Your task to perform on an android device: change the clock style Image 0: 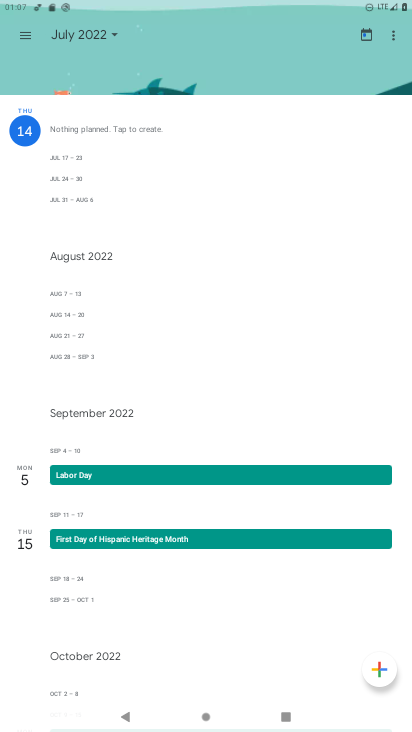
Step 0: press home button
Your task to perform on an android device: change the clock style Image 1: 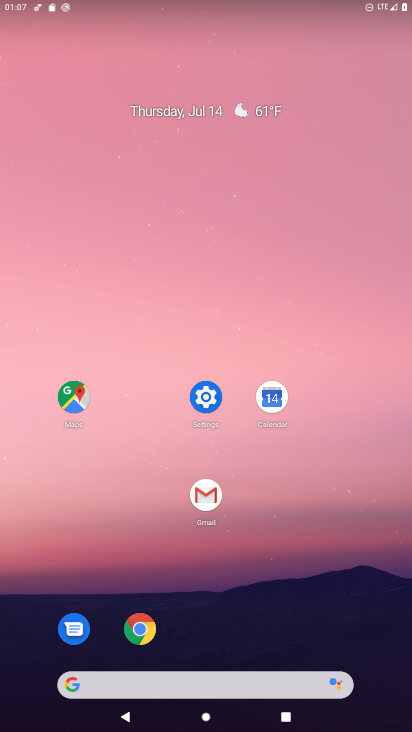
Step 1: drag from (394, 706) to (373, 192)
Your task to perform on an android device: change the clock style Image 2: 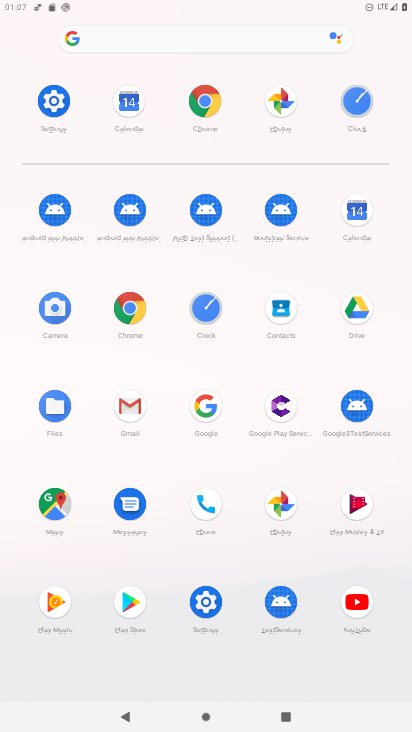
Step 2: click (53, 102)
Your task to perform on an android device: change the clock style Image 3: 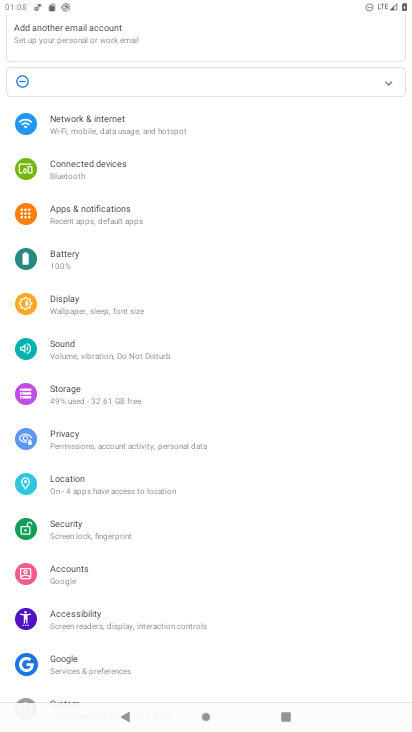
Step 3: press home button
Your task to perform on an android device: change the clock style Image 4: 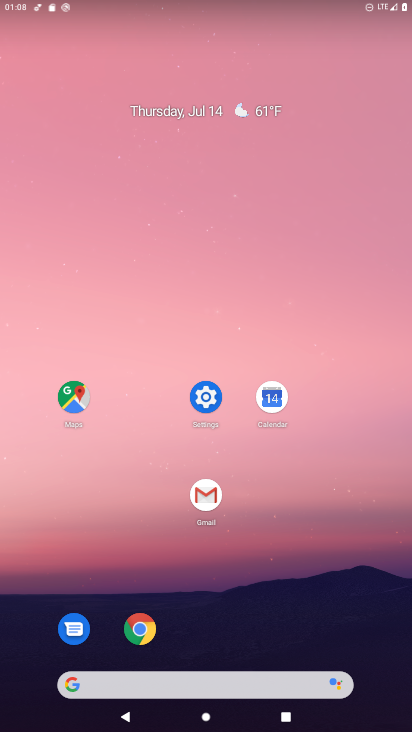
Step 4: drag from (391, 716) to (330, 97)
Your task to perform on an android device: change the clock style Image 5: 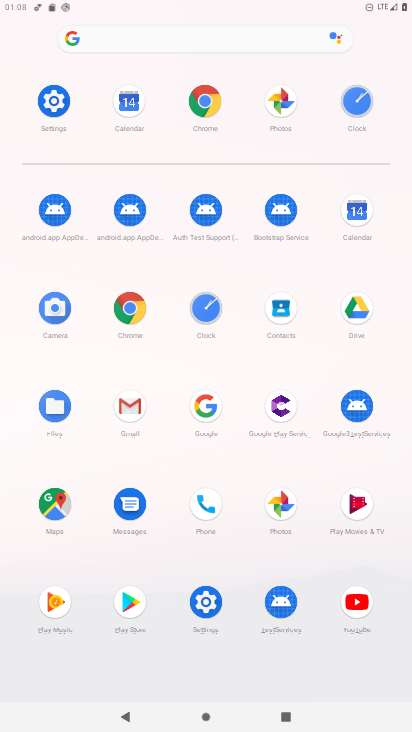
Step 5: click (200, 308)
Your task to perform on an android device: change the clock style Image 6: 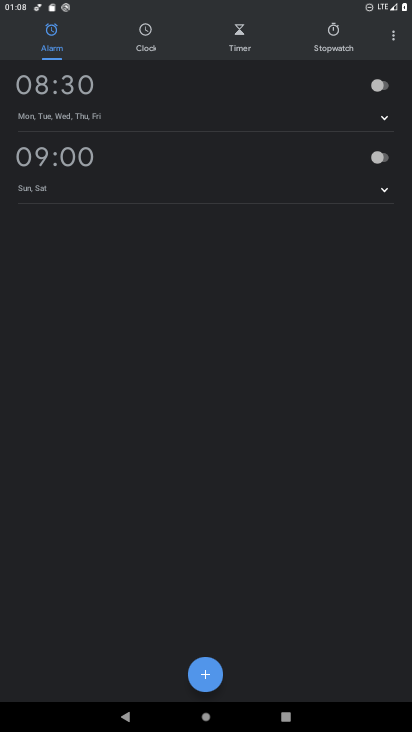
Step 6: click (395, 36)
Your task to perform on an android device: change the clock style Image 7: 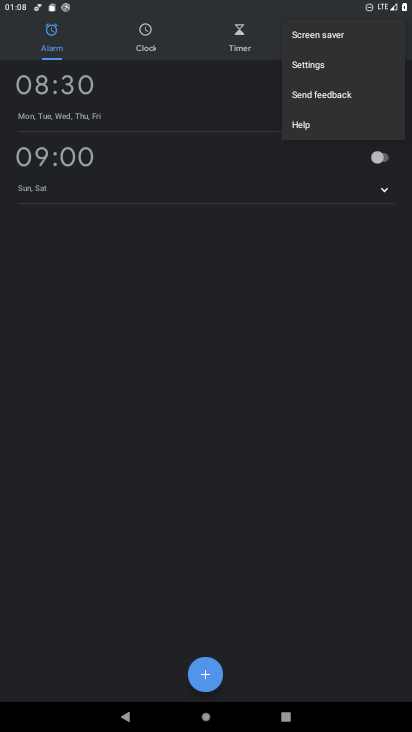
Step 7: click (302, 62)
Your task to perform on an android device: change the clock style Image 8: 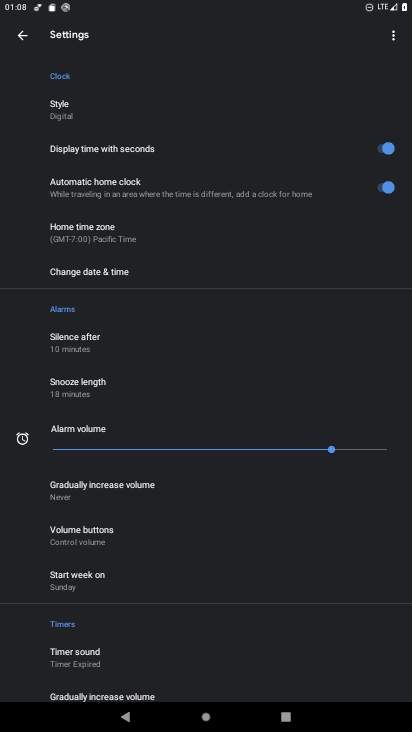
Step 8: click (67, 104)
Your task to perform on an android device: change the clock style Image 9: 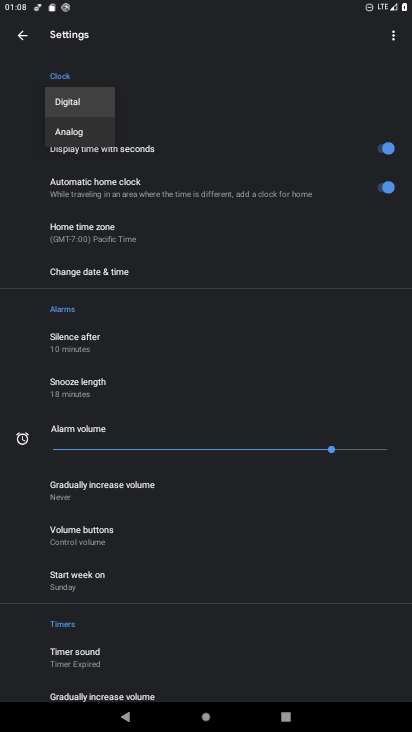
Step 9: click (81, 130)
Your task to perform on an android device: change the clock style Image 10: 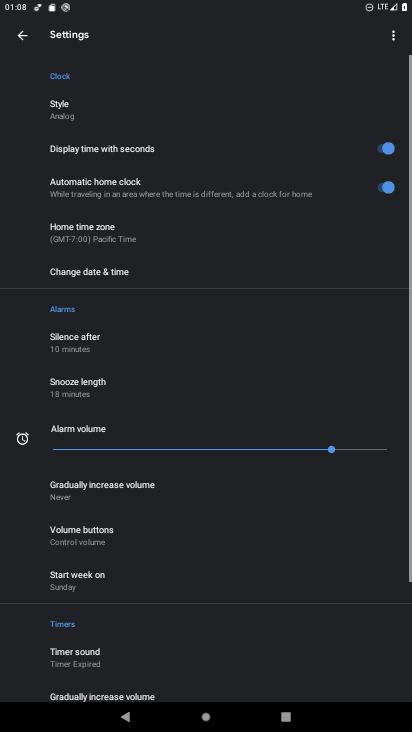
Step 10: task complete